Your task to perform on an android device: Open the clock Image 0: 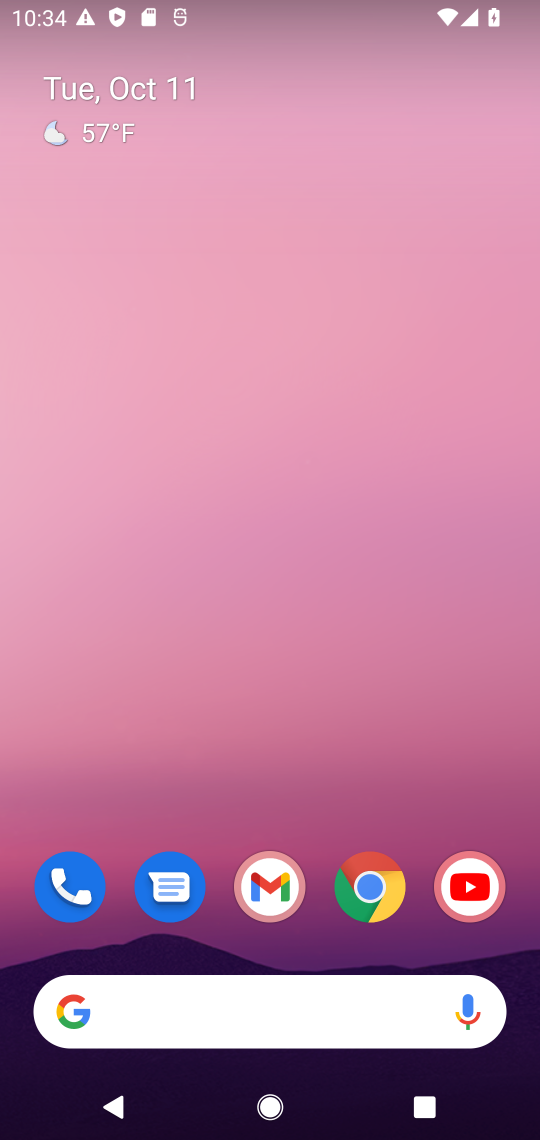
Step 0: press home button
Your task to perform on an android device: Open the clock Image 1: 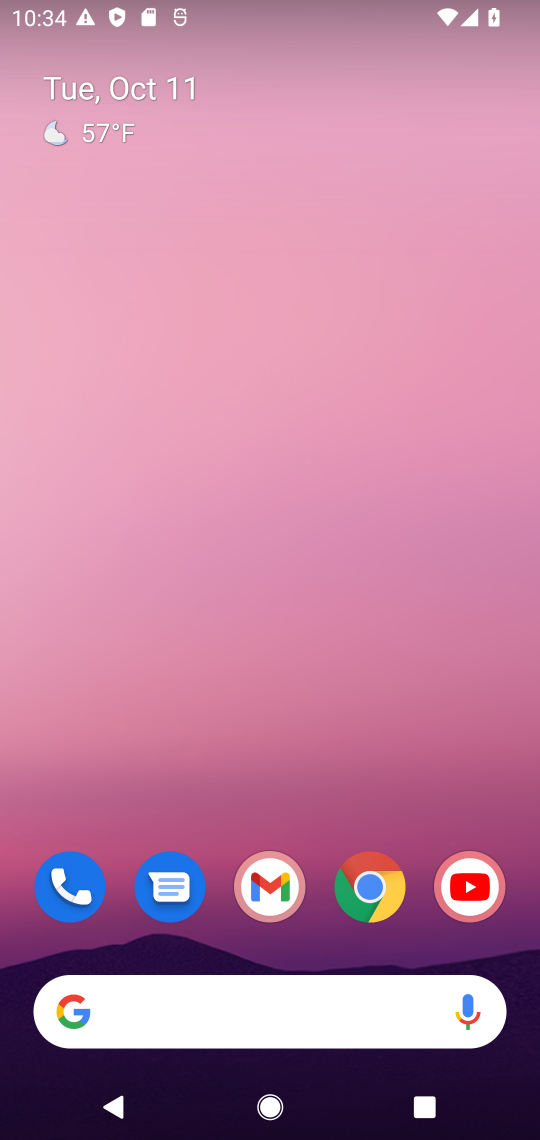
Step 1: drag from (498, 791) to (499, 94)
Your task to perform on an android device: Open the clock Image 2: 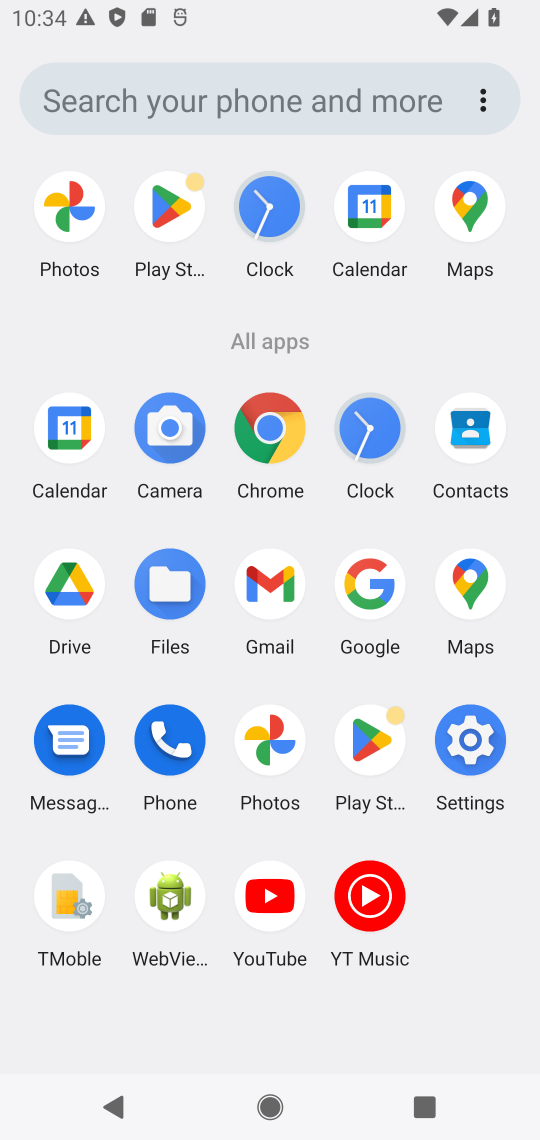
Step 2: click (376, 437)
Your task to perform on an android device: Open the clock Image 3: 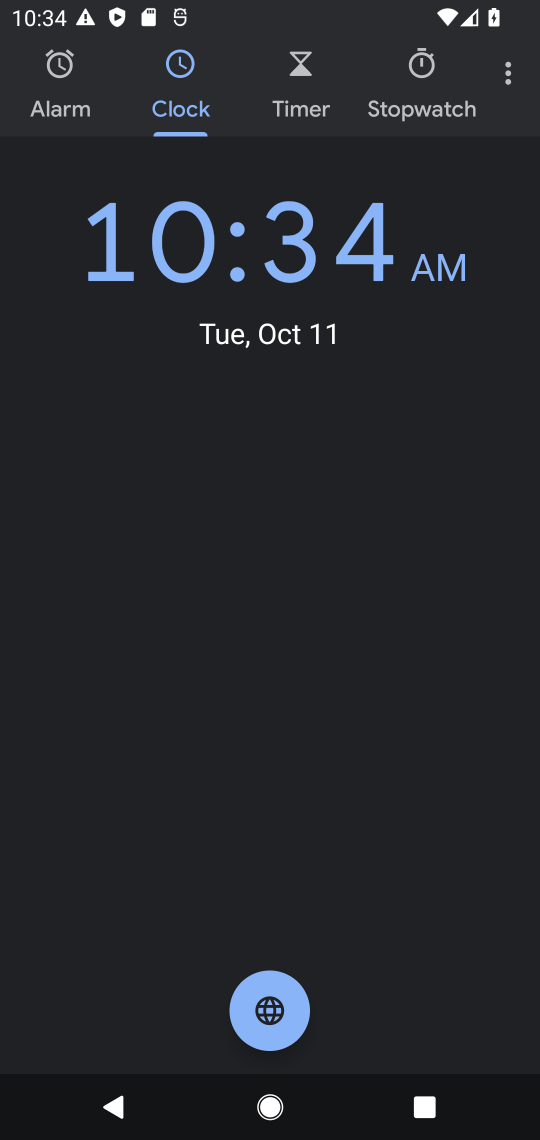
Step 3: task complete